Your task to perform on an android device: Search for sushi restaurants on Maps Image 0: 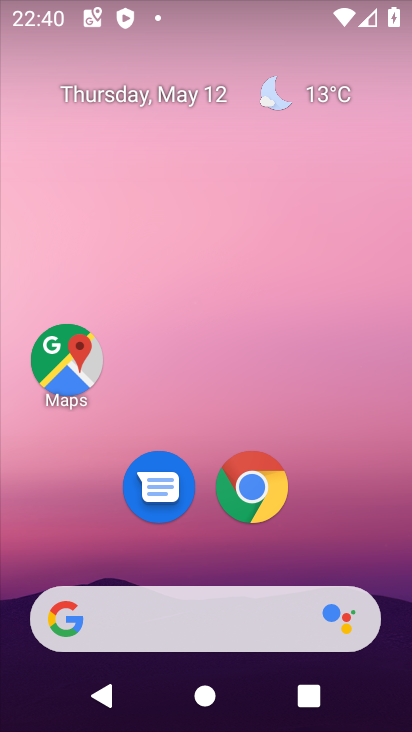
Step 0: click (73, 341)
Your task to perform on an android device: Search for sushi restaurants on Maps Image 1: 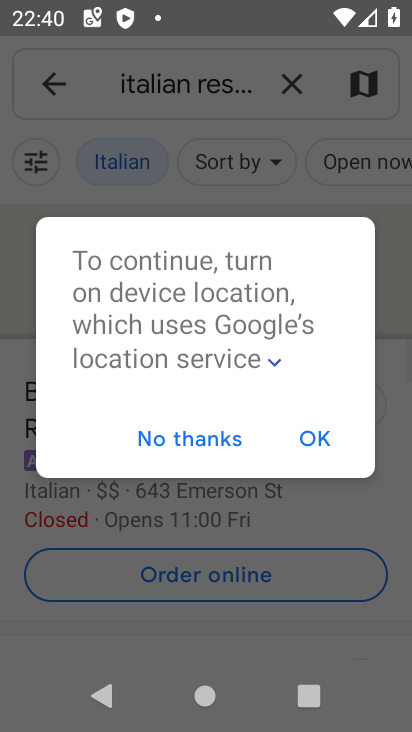
Step 1: click (301, 81)
Your task to perform on an android device: Search for sushi restaurants on Maps Image 2: 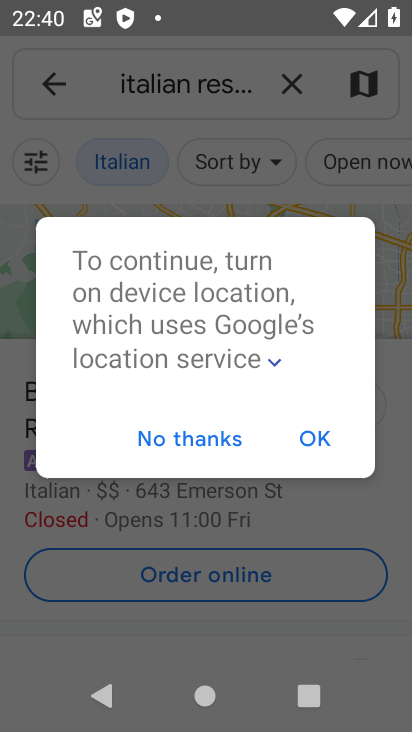
Step 2: click (316, 451)
Your task to perform on an android device: Search for sushi restaurants on Maps Image 3: 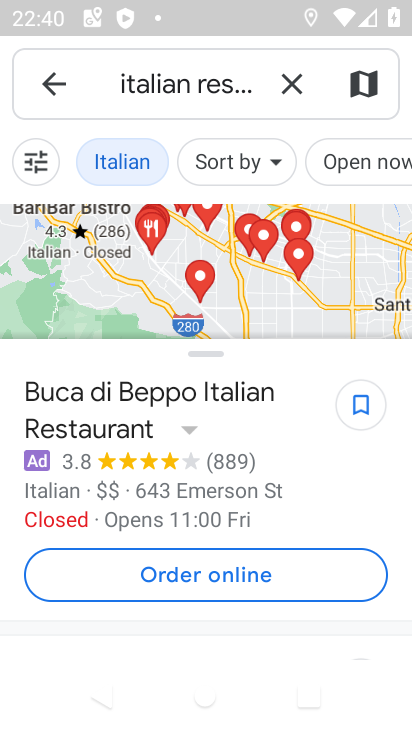
Step 3: click (282, 75)
Your task to perform on an android device: Search for sushi restaurants on Maps Image 4: 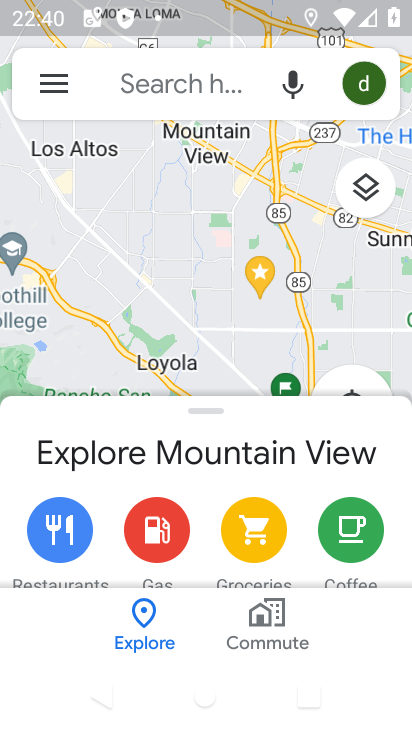
Step 4: click (185, 90)
Your task to perform on an android device: Search for sushi restaurants on Maps Image 5: 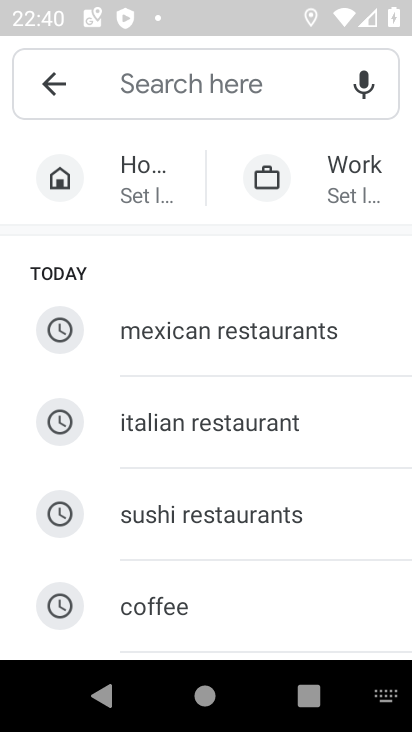
Step 5: click (181, 496)
Your task to perform on an android device: Search for sushi restaurants on Maps Image 6: 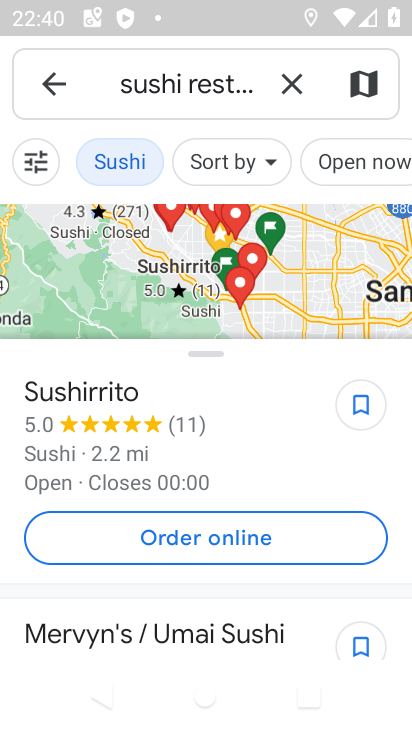
Step 6: task complete